Your task to perform on an android device: star an email in the gmail app Image 0: 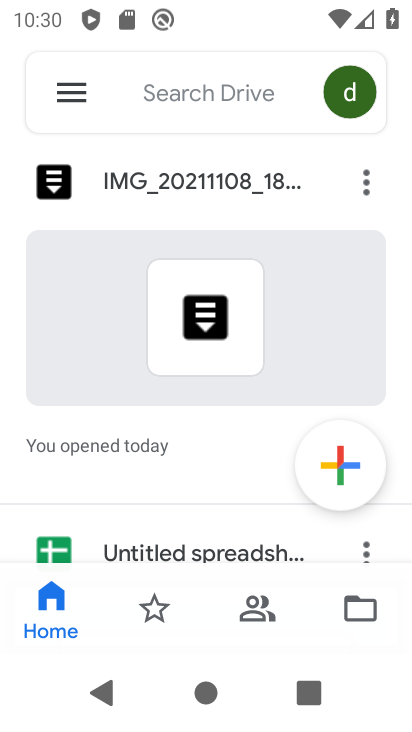
Step 0: press home button
Your task to perform on an android device: star an email in the gmail app Image 1: 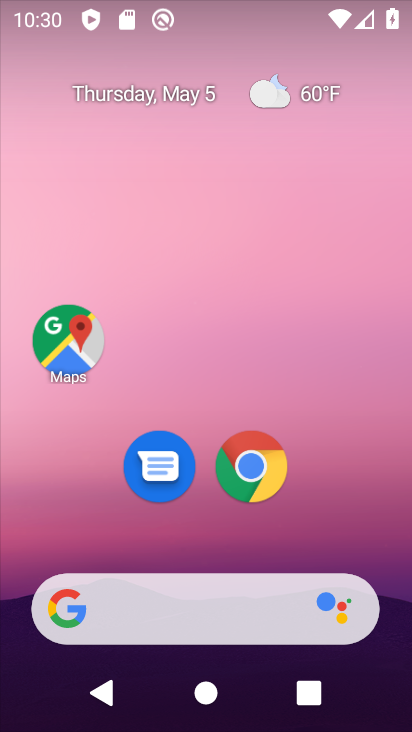
Step 1: drag from (147, 575) to (207, 192)
Your task to perform on an android device: star an email in the gmail app Image 2: 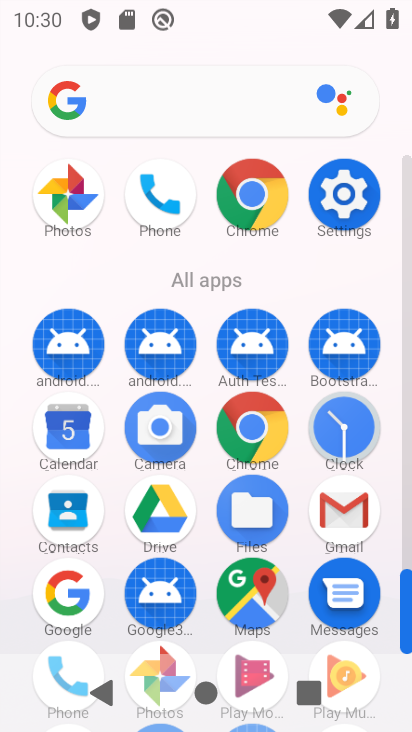
Step 2: click (336, 515)
Your task to perform on an android device: star an email in the gmail app Image 3: 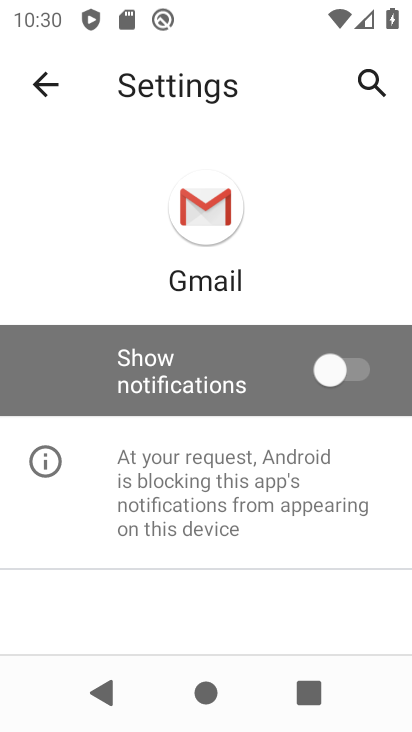
Step 3: click (37, 82)
Your task to perform on an android device: star an email in the gmail app Image 4: 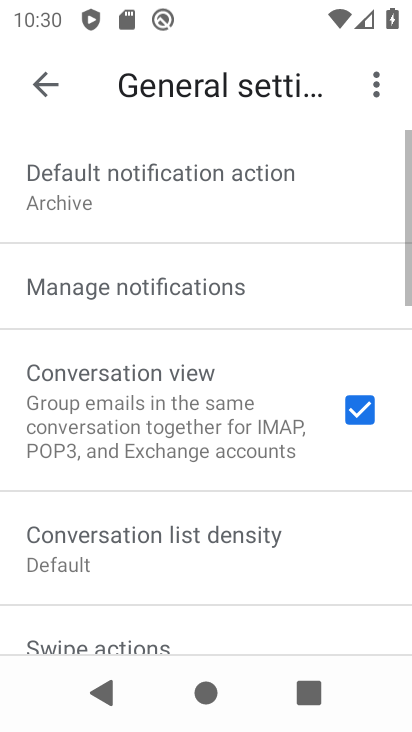
Step 4: click (37, 83)
Your task to perform on an android device: star an email in the gmail app Image 5: 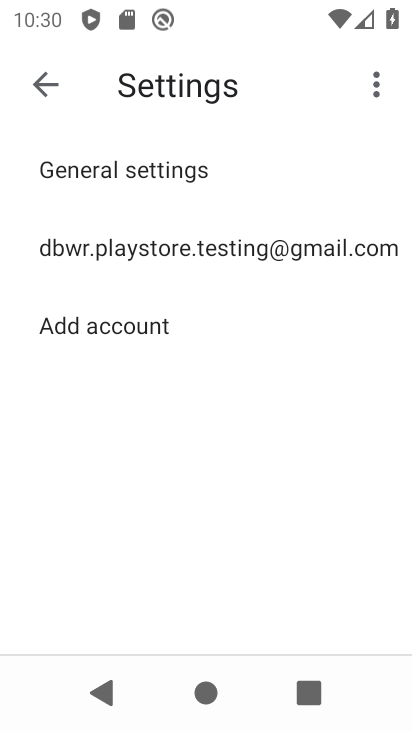
Step 5: click (37, 83)
Your task to perform on an android device: star an email in the gmail app Image 6: 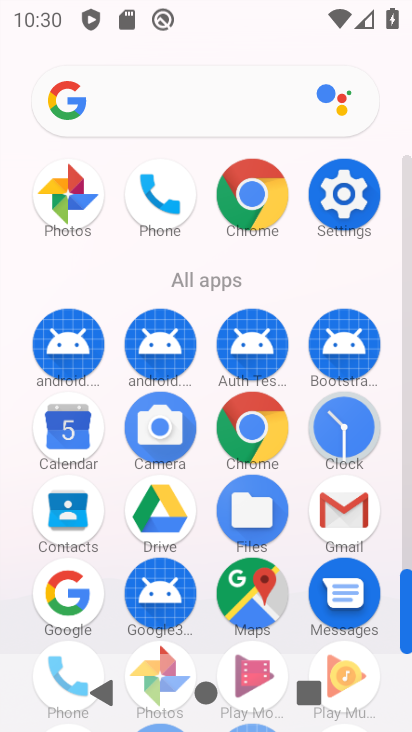
Step 6: click (355, 528)
Your task to perform on an android device: star an email in the gmail app Image 7: 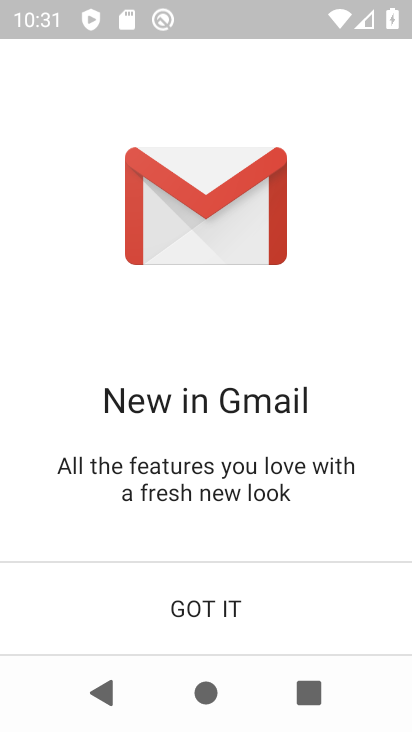
Step 7: click (216, 617)
Your task to perform on an android device: star an email in the gmail app Image 8: 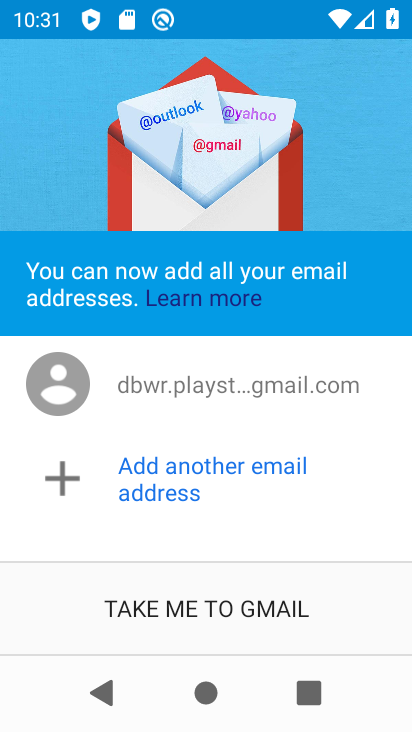
Step 8: click (216, 617)
Your task to perform on an android device: star an email in the gmail app Image 9: 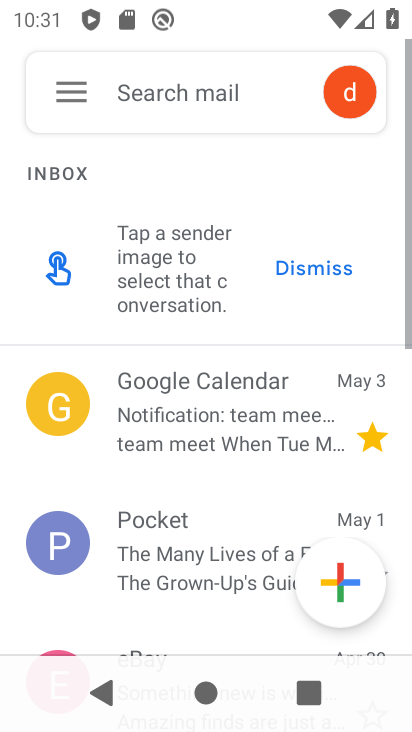
Step 9: drag from (231, 636) to (238, 249)
Your task to perform on an android device: star an email in the gmail app Image 10: 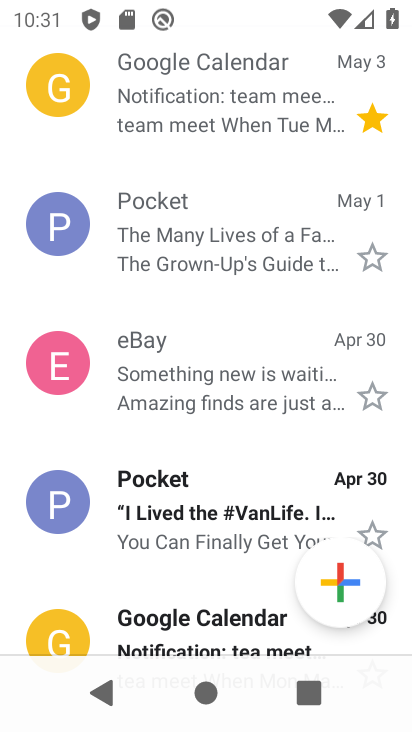
Step 10: click (373, 396)
Your task to perform on an android device: star an email in the gmail app Image 11: 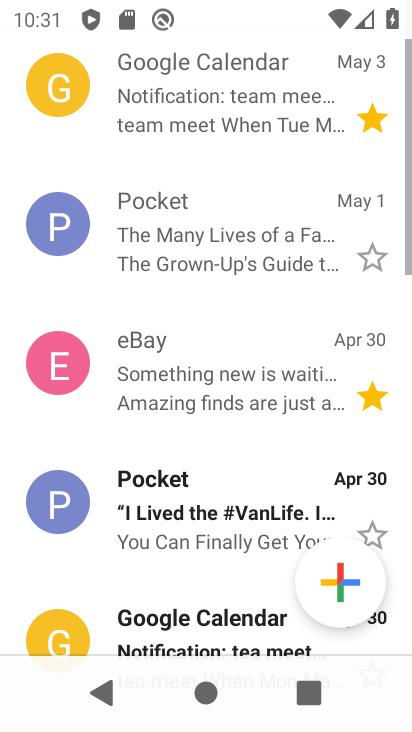
Step 11: task complete